Your task to perform on an android device: Toggle the flashlight Image 0: 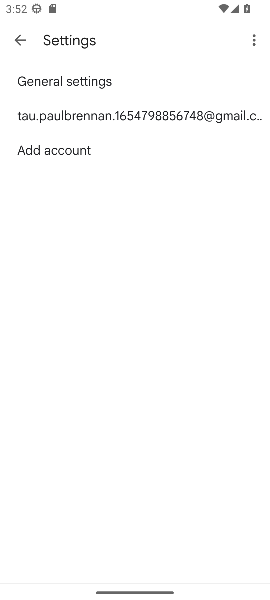
Step 0: press home button
Your task to perform on an android device: Toggle the flashlight Image 1: 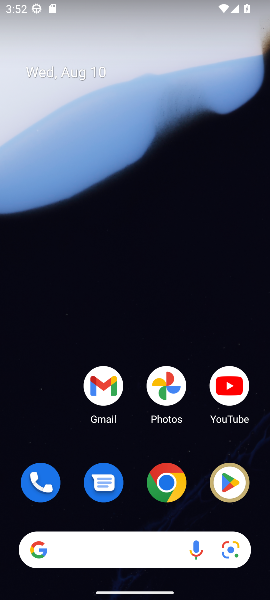
Step 1: drag from (136, 445) to (181, 23)
Your task to perform on an android device: Toggle the flashlight Image 2: 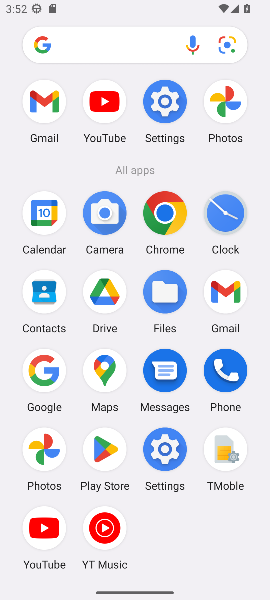
Step 2: click (174, 100)
Your task to perform on an android device: Toggle the flashlight Image 3: 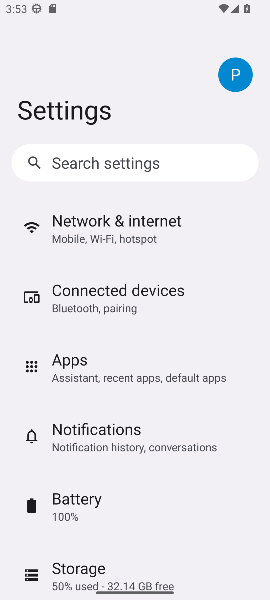
Step 3: click (164, 160)
Your task to perform on an android device: Toggle the flashlight Image 4: 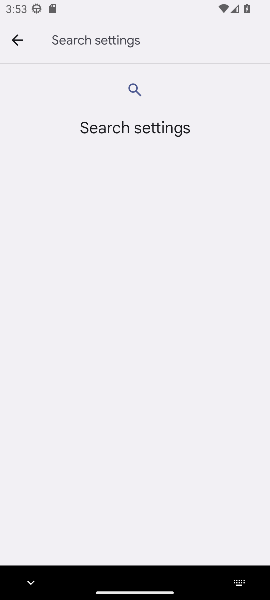
Step 4: type "Flashllight"
Your task to perform on an android device: Toggle the flashlight Image 5: 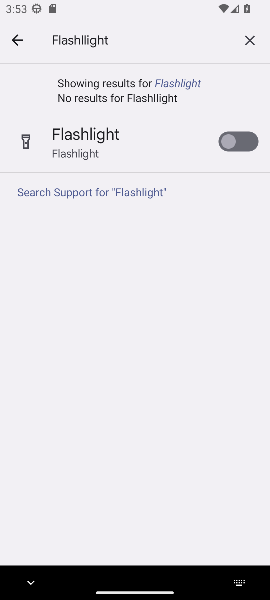
Step 5: click (242, 143)
Your task to perform on an android device: Toggle the flashlight Image 6: 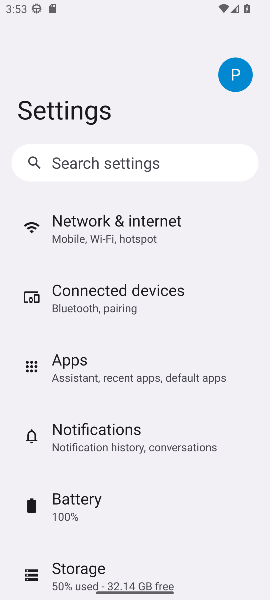
Step 6: task complete